Your task to perform on an android device: open app "Lyft - Rideshare, Bikes, Scooters & Transit" Image 0: 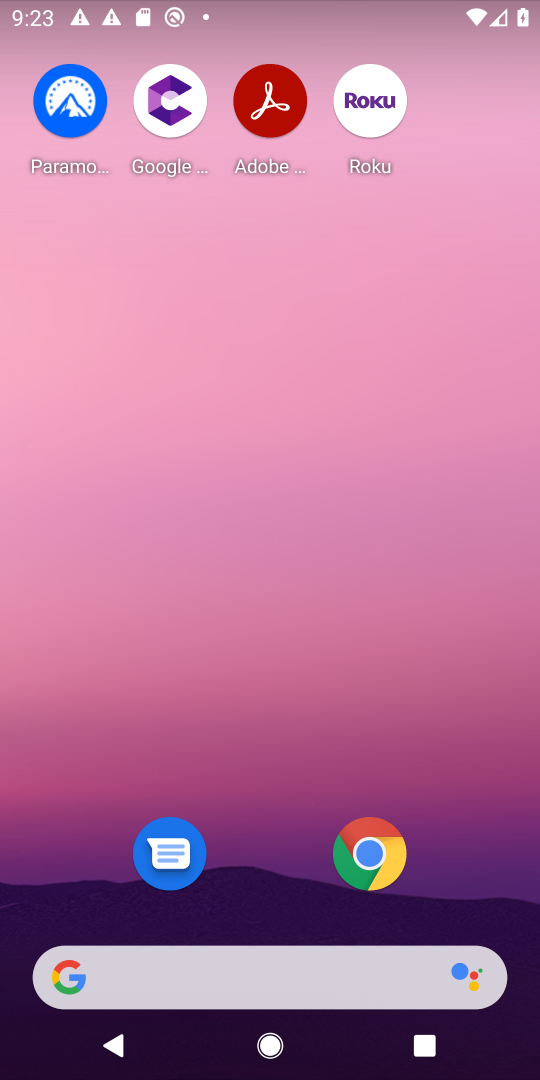
Step 0: drag from (251, 915) to (353, 30)
Your task to perform on an android device: open app "Lyft - Rideshare, Bikes, Scooters & Transit" Image 1: 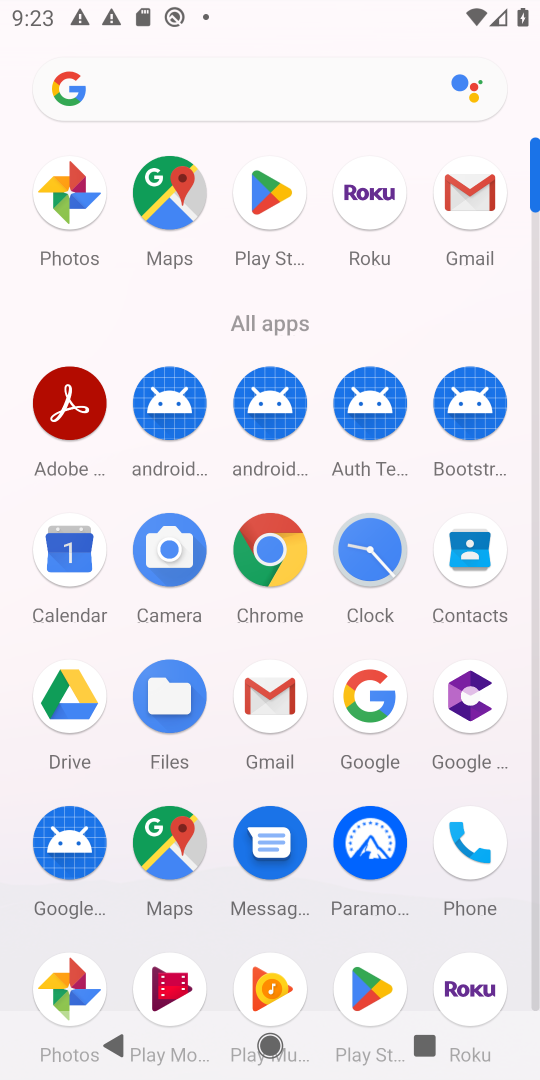
Step 1: drag from (314, 869) to (279, 371)
Your task to perform on an android device: open app "Lyft - Rideshare, Bikes, Scooters & Transit" Image 2: 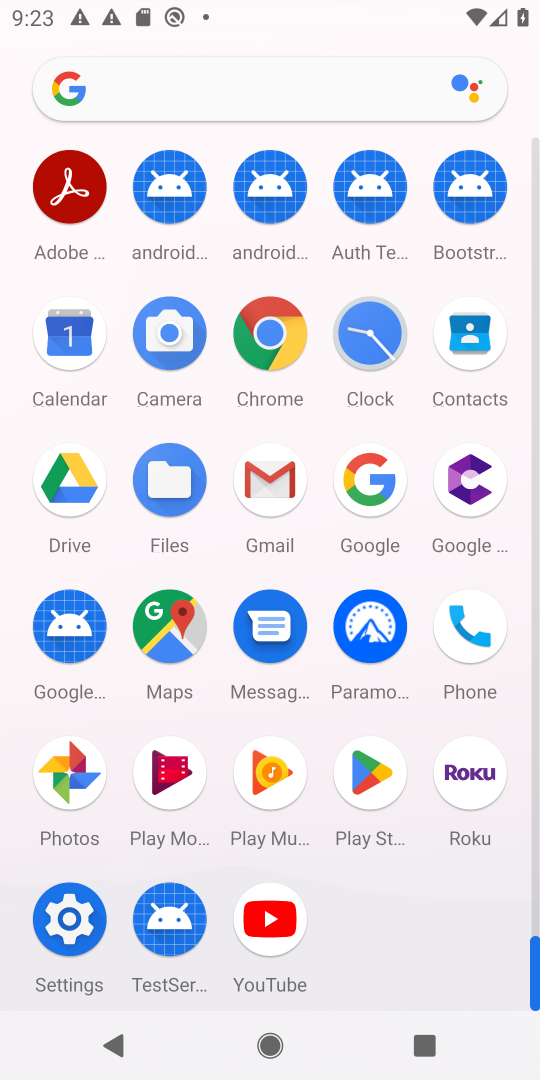
Step 2: click (363, 777)
Your task to perform on an android device: open app "Lyft - Rideshare, Bikes, Scooters & Transit" Image 3: 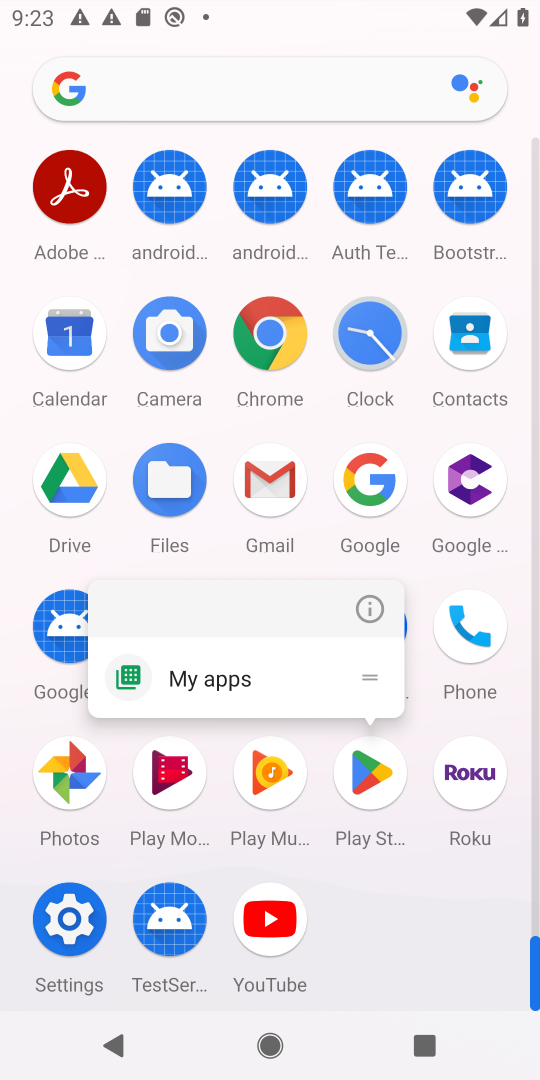
Step 3: click (379, 607)
Your task to perform on an android device: open app "Lyft - Rideshare, Bikes, Scooters & Transit" Image 4: 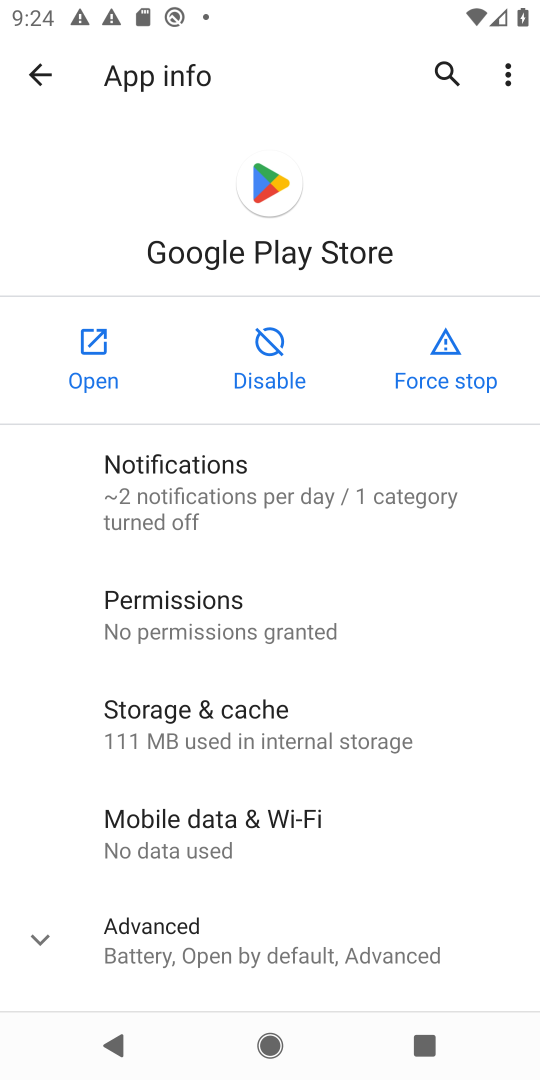
Step 4: click (87, 342)
Your task to perform on an android device: open app "Lyft - Rideshare, Bikes, Scooters & Transit" Image 5: 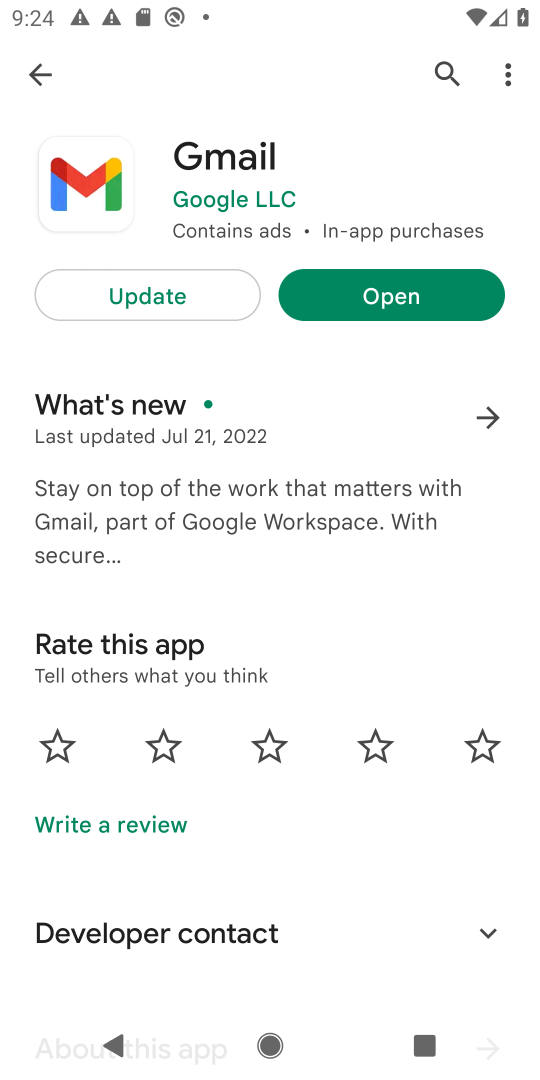
Step 5: click (446, 69)
Your task to perform on an android device: open app "Lyft - Rideshare, Bikes, Scooters & Transit" Image 6: 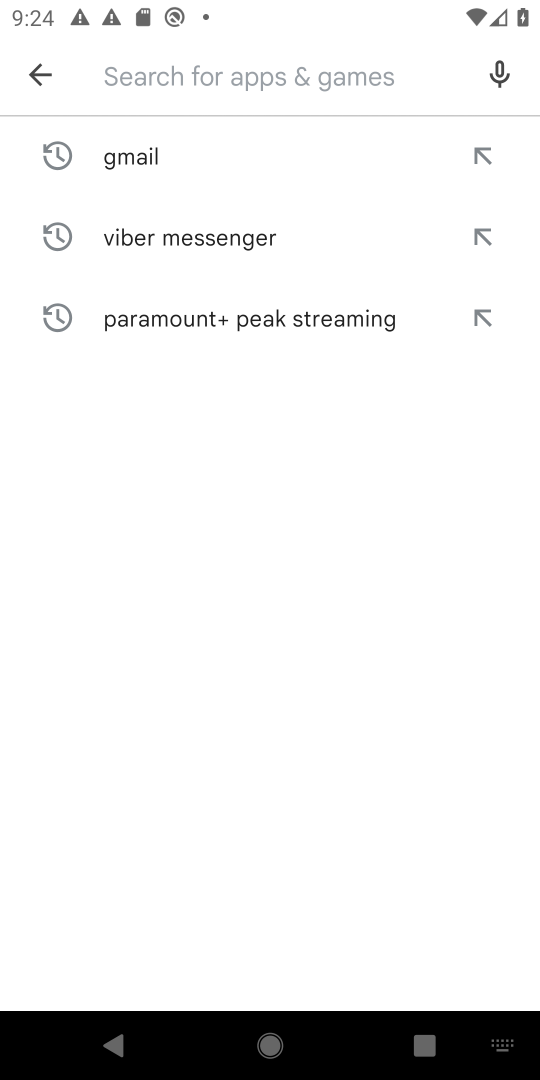
Step 6: type "Lyft - Rideshare, Bikes, Scooters & Transit"
Your task to perform on an android device: open app "Lyft - Rideshare, Bikes, Scooters & Transit" Image 7: 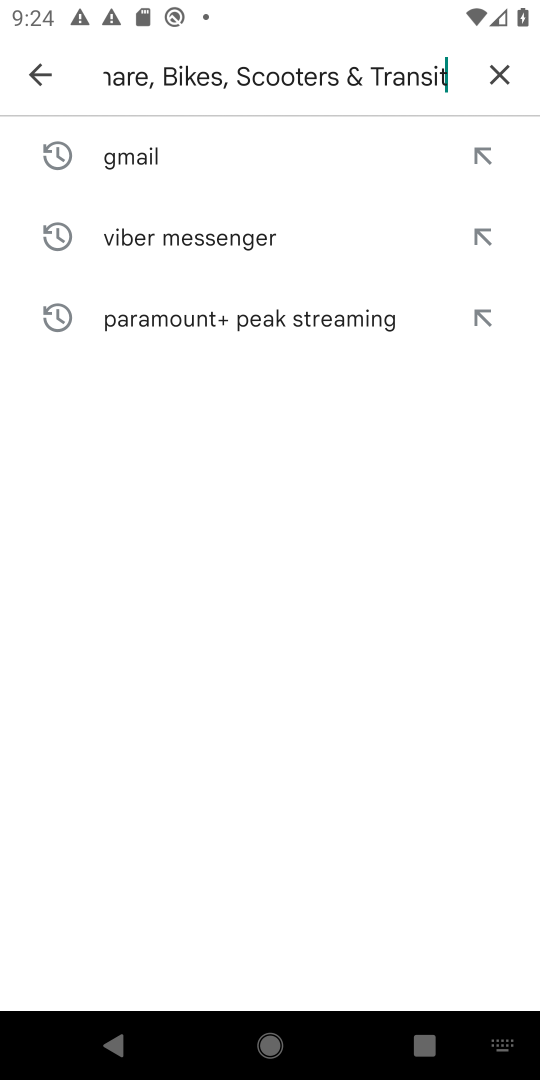
Step 7: type ""
Your task to perform on an android device: open app "Lyft - Rideshare, Bikes, Scooters & Transit" Image 8: 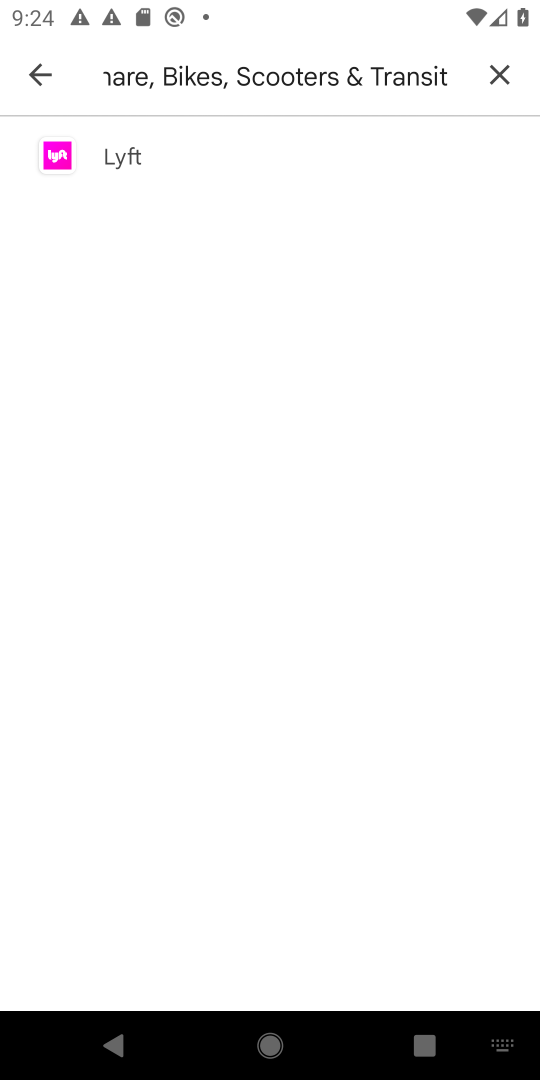
Step 8: click (158, 144)
Your task to perform on an android device: open app "Lyft - Rideshare, Bikes, Scooters & Transit" Image 9: 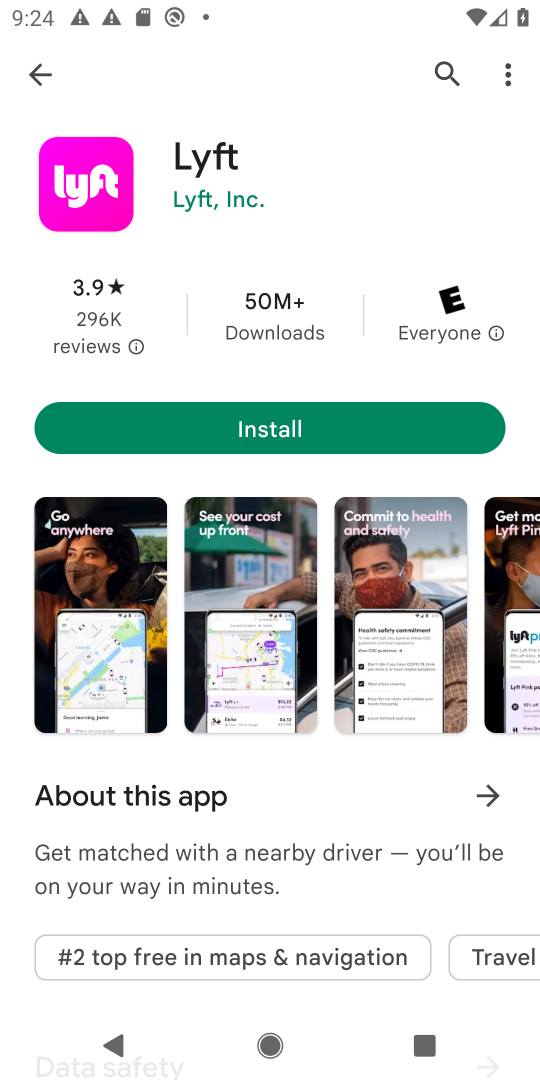
Step 9: task complete